Your task to perform on an android device: open chrome and create a bookmark for the current page Image 0: 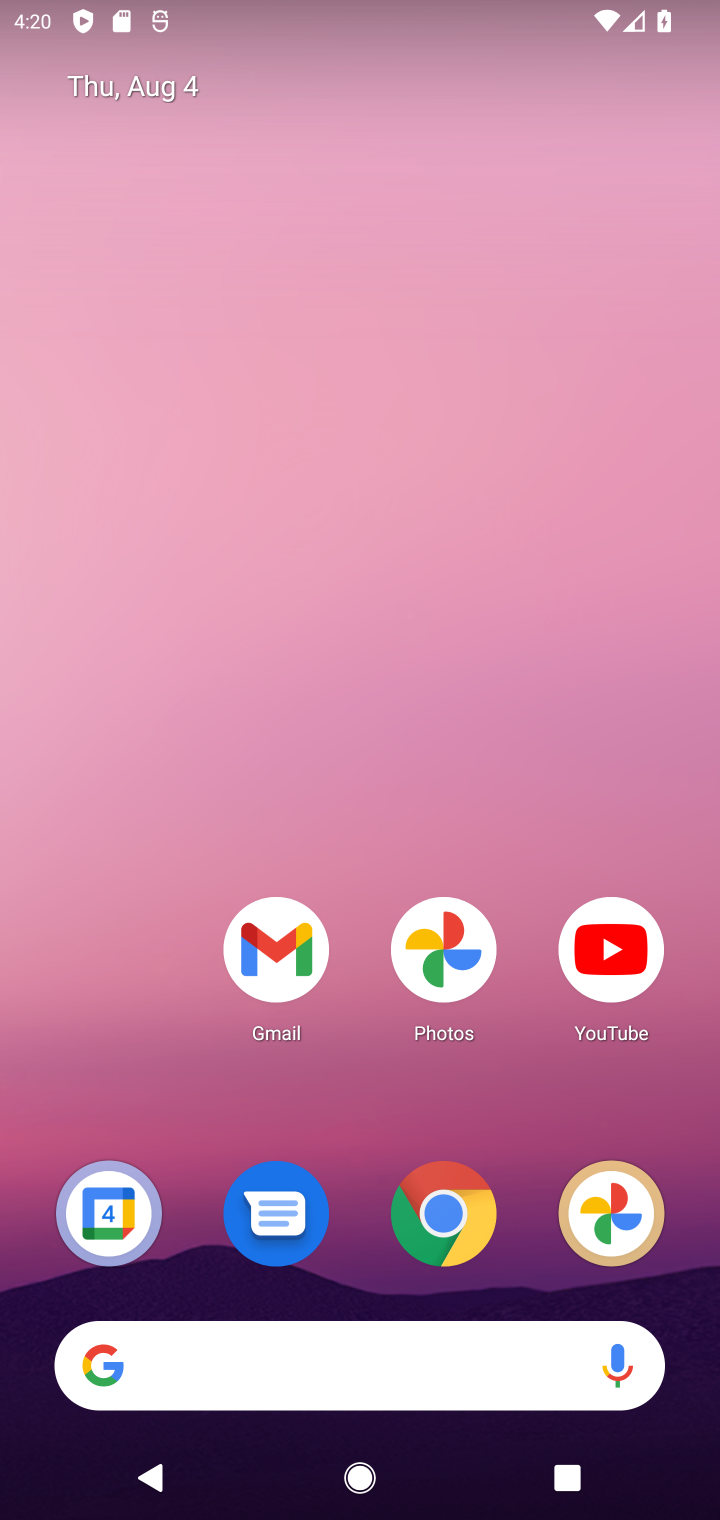
Step 0: press home button
Your task to perform on an android device: open chrome and create a bookmark for the current page Image 1: 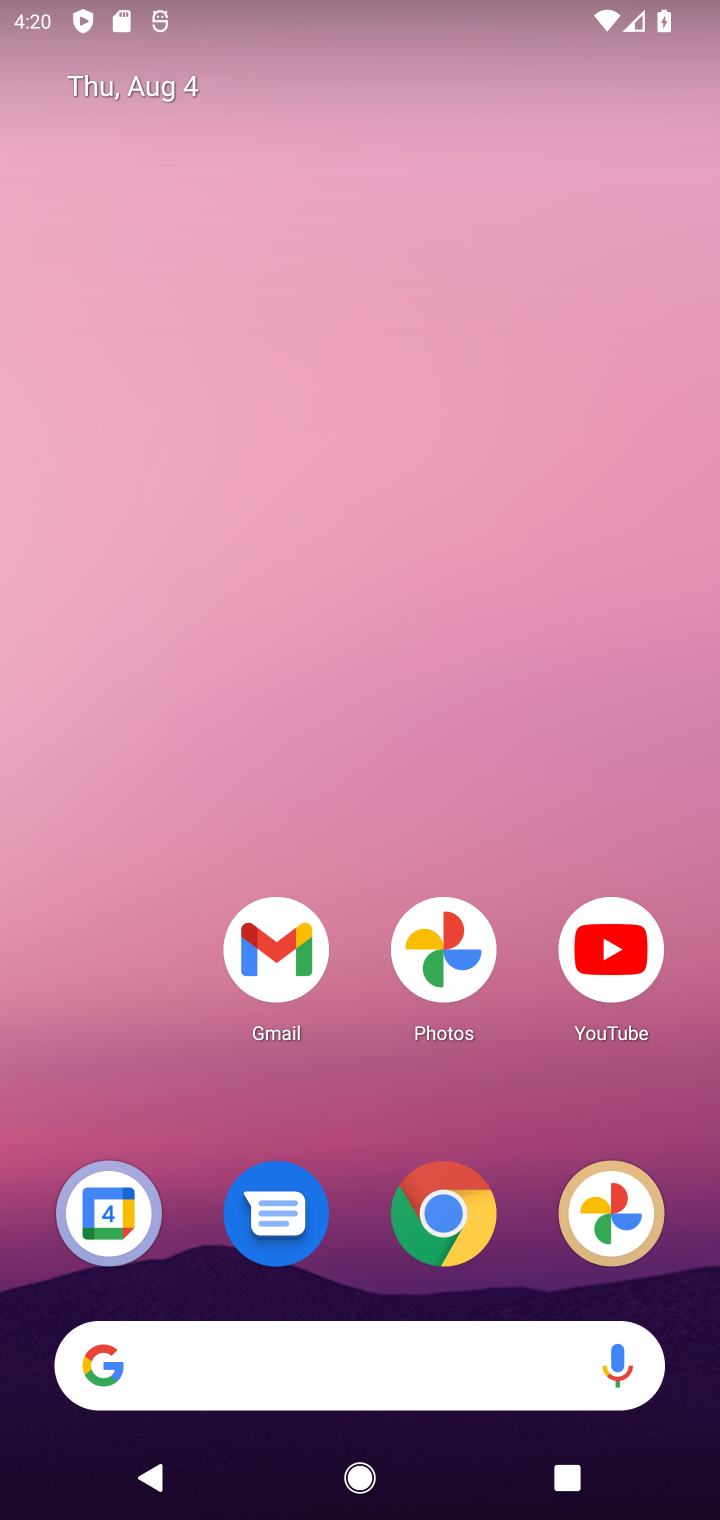
Step 1: drag from (178, 1082) to (242, 273)
Your task to perform on an android device: open chrome and create a bookmark for the current page Image 2: 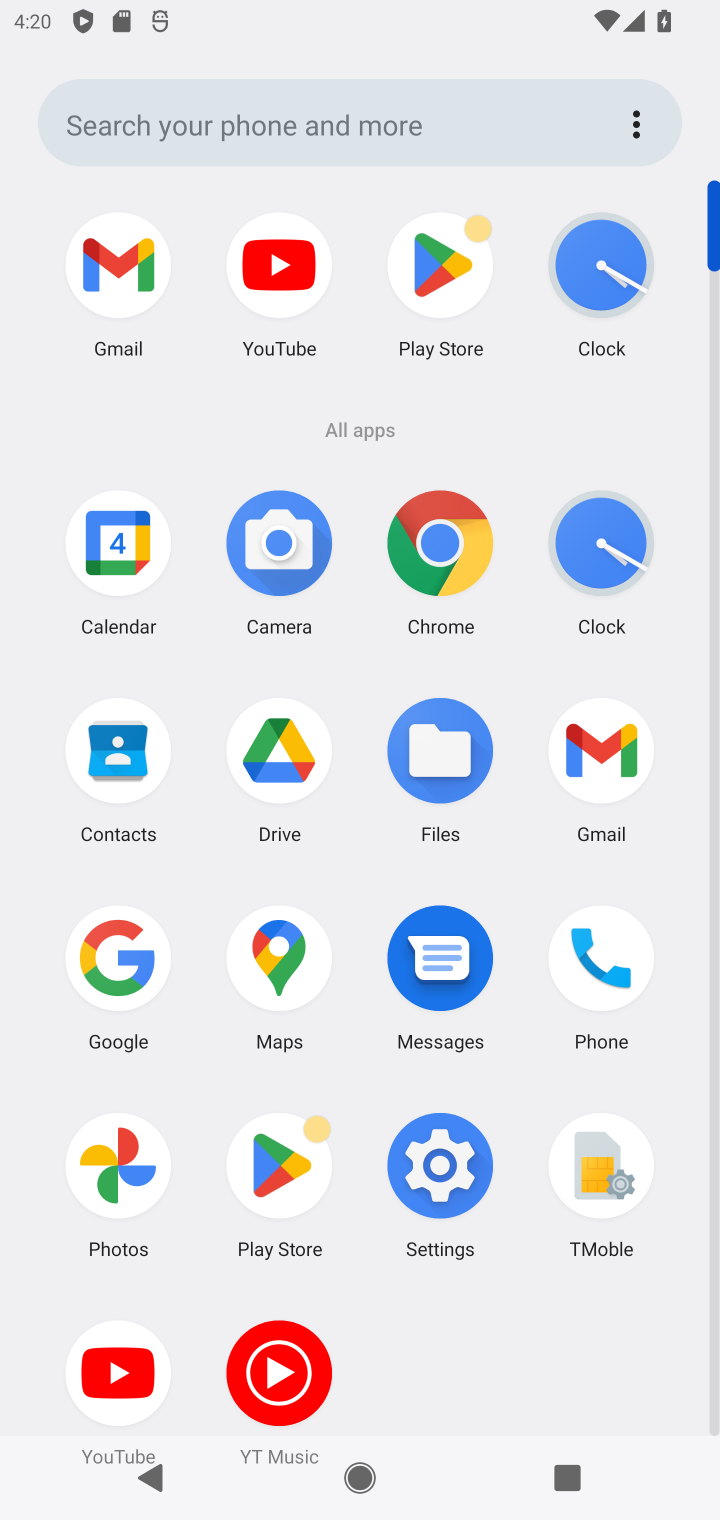
Step 2: click (456, 551)
Your task to perform on an android device: open chrome and create a bookmark for the current page Image 3: 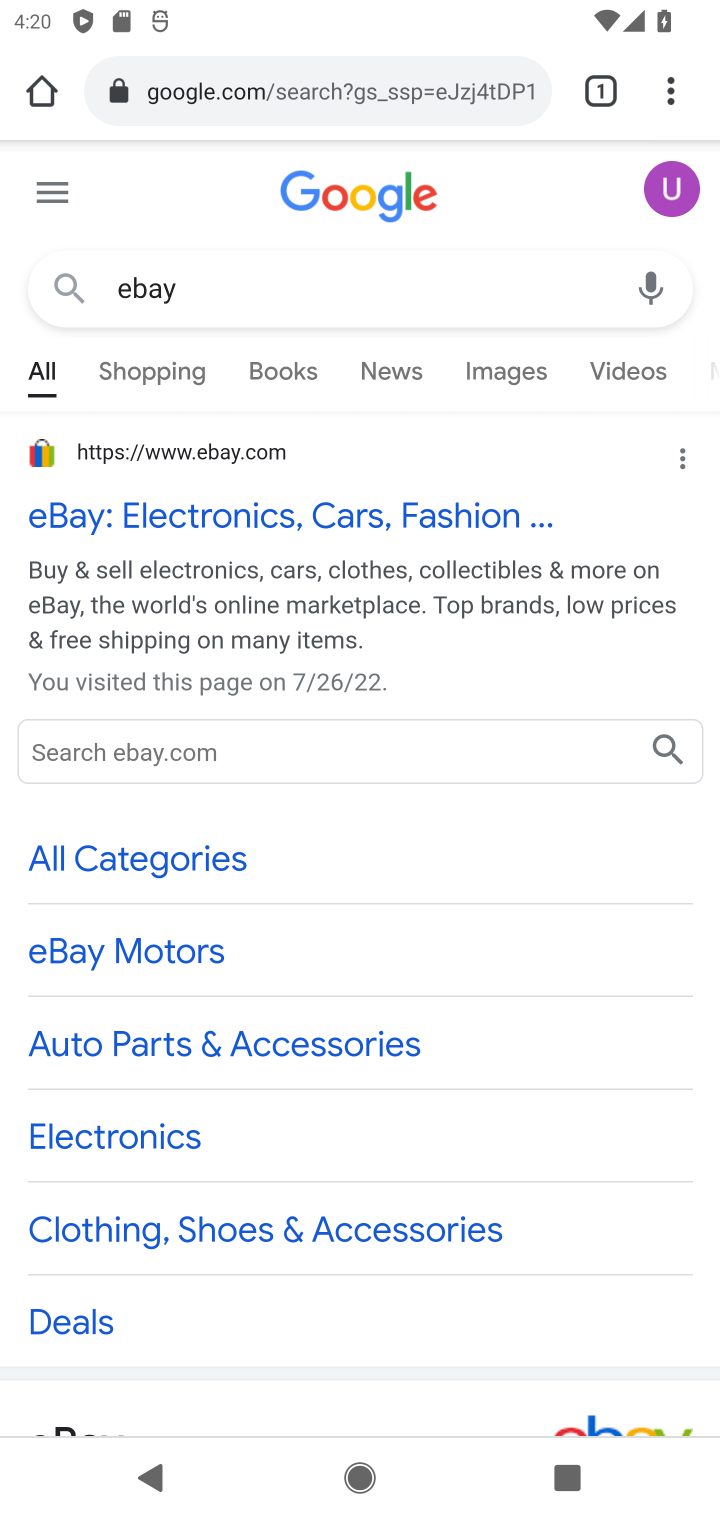
Step 3: click (673, 84)
Your task to perform on an android device: open chrome and create a bookmark for the current page Image 4: 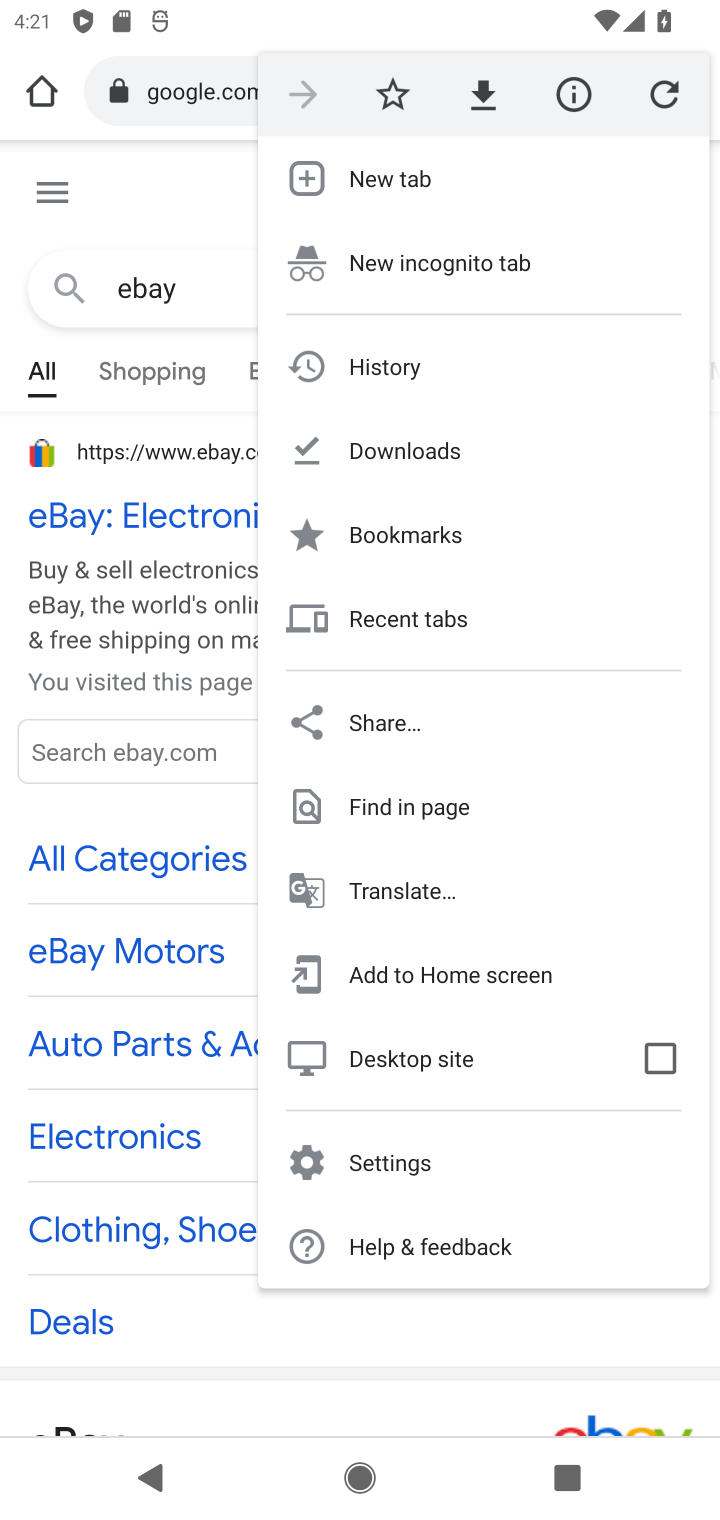
Step 4: click (388, 96)
Your task to perform on an android device: open chrome and create a bookmark for the current page Image 5: 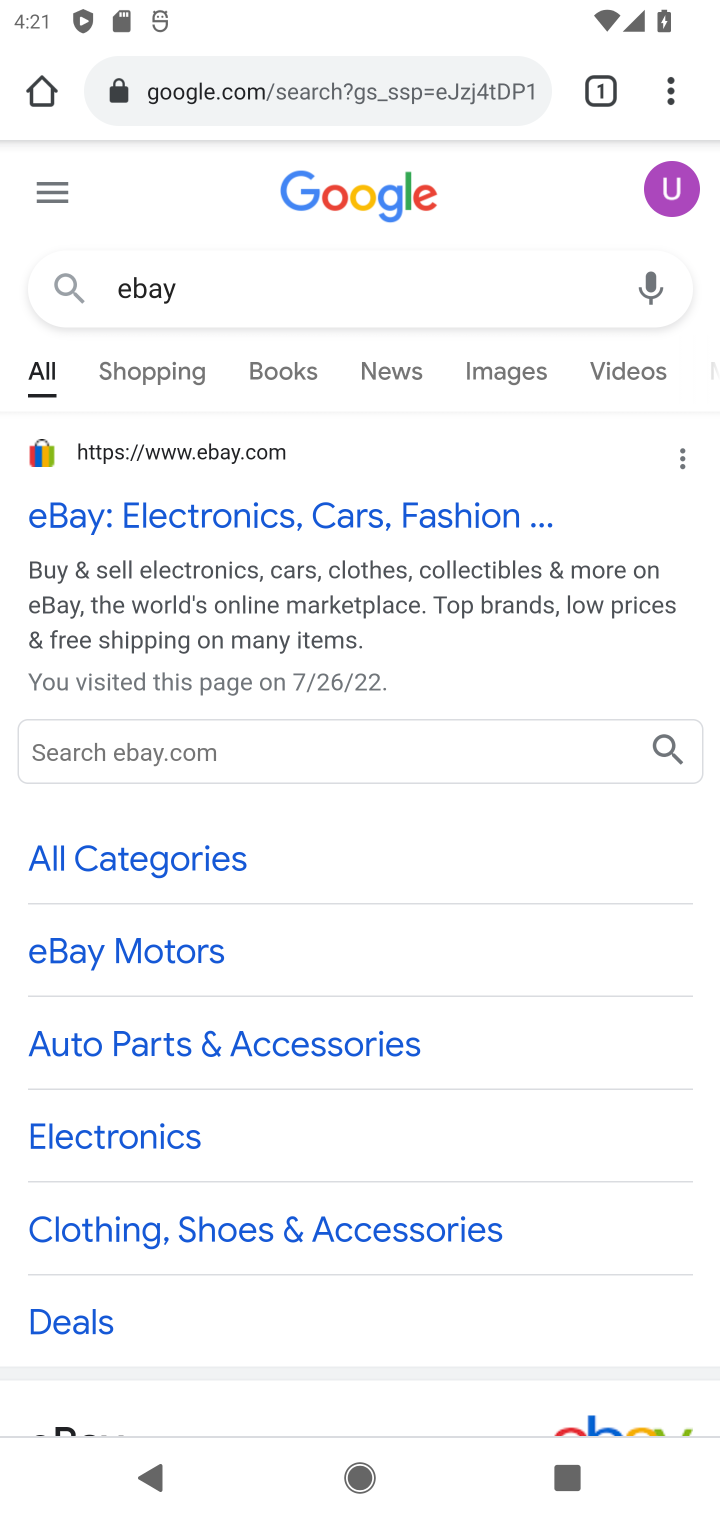
Step 5: task complete